Your task to perform on an android device: move an email to a new category in the gmail app Image 0: 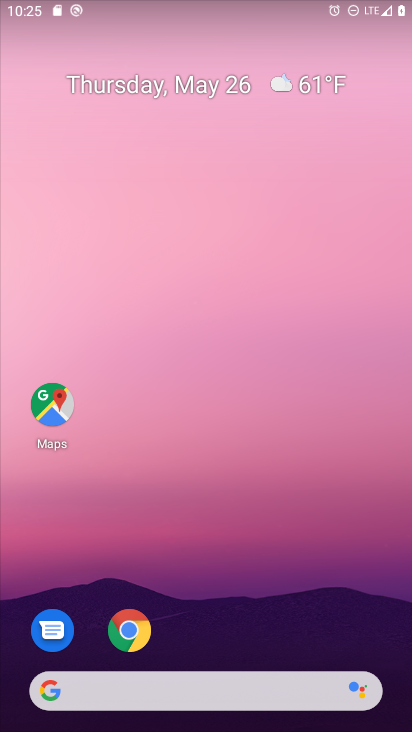
Step 0: drag from (201, 658) to (157, 66)
Your task to perform on an android device: move an email to a new category in the gmail app Image 1: 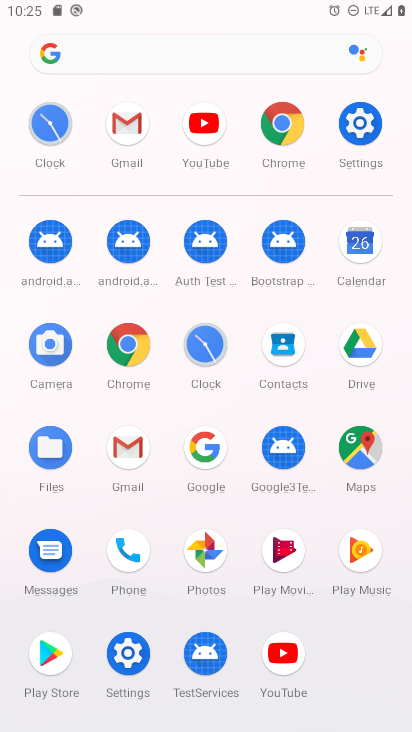
Step 1: click (127, 450)
Your task to perform on an android device: move an email to a new category in the gmail app Image 2: 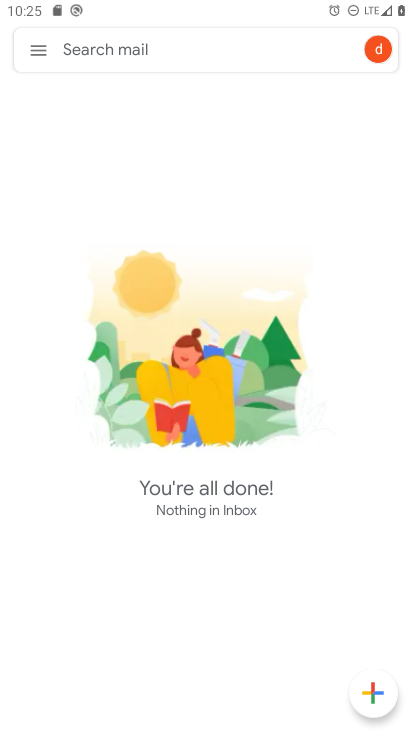
Step 2: task complete